Your task to perform on an android device: toggle data saver in the chrome app Image 0: 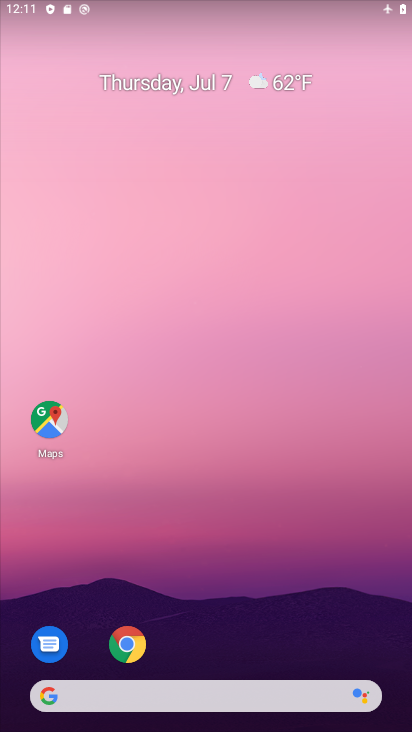
Step 0: click (126, 663)
Your task to perform on an android device: toggle data saver in the chrome app Image 1: 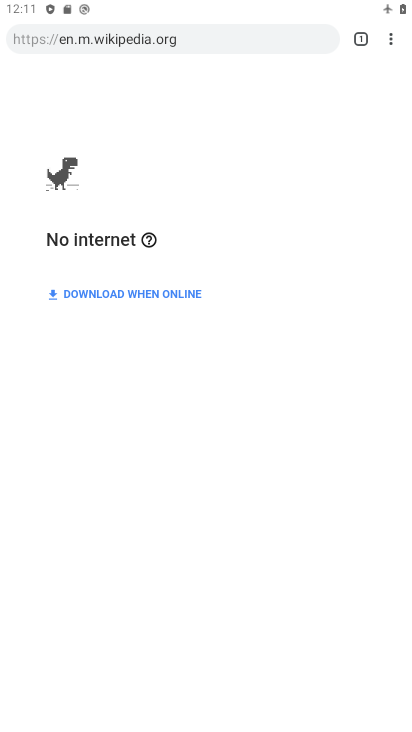
Step 1: click (398, 41)
Your task to perform on an android device: toggle data saver in the chrome app Image 2: 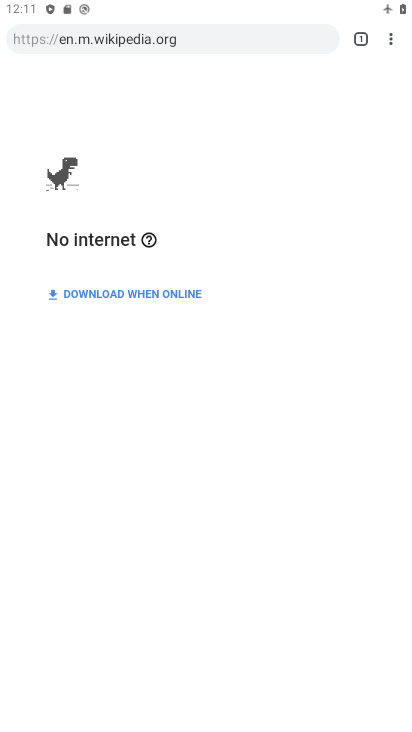
Step 2: click (390, 40)
Your task to perform on an android device: toggle data saver in the chrome app Image 3: 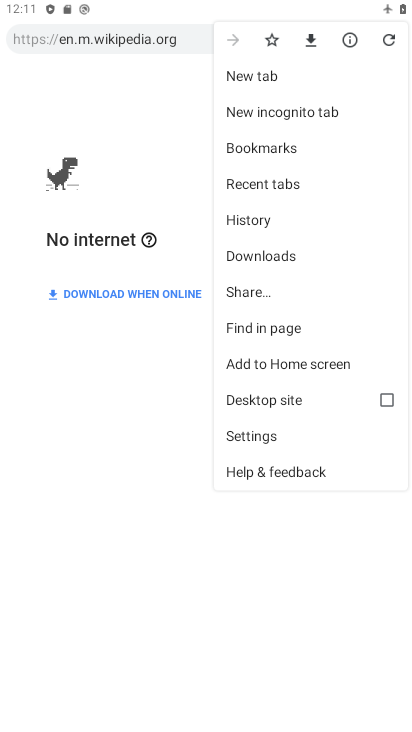
Step 3: click (285, 441)
Your task to perform on an android device: toggle data saver in the chrome app Image 4: 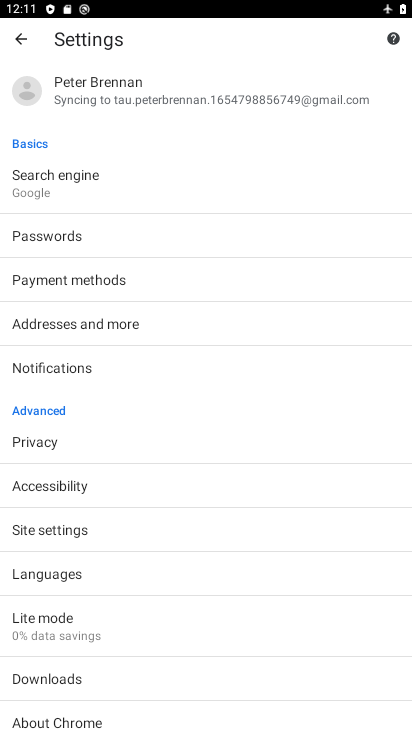
Step 4: click (119, 619)
Your task to perform on an android device: toggle data saver in the chrome app Image 5: 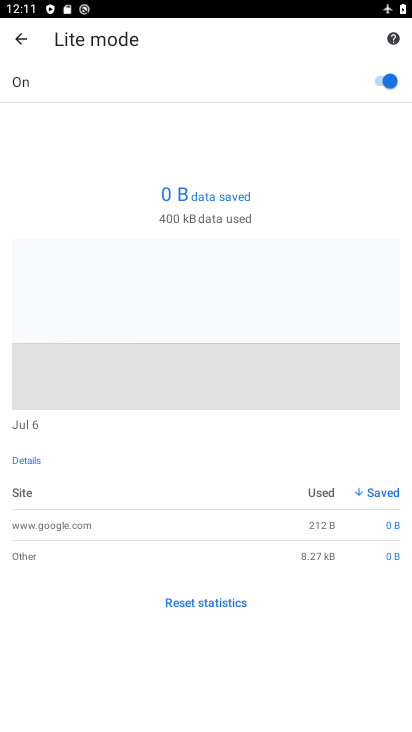
Step 5: click (382, 82)
Your task to perform on an android device: toggle data saver in the chrome app Image 6: 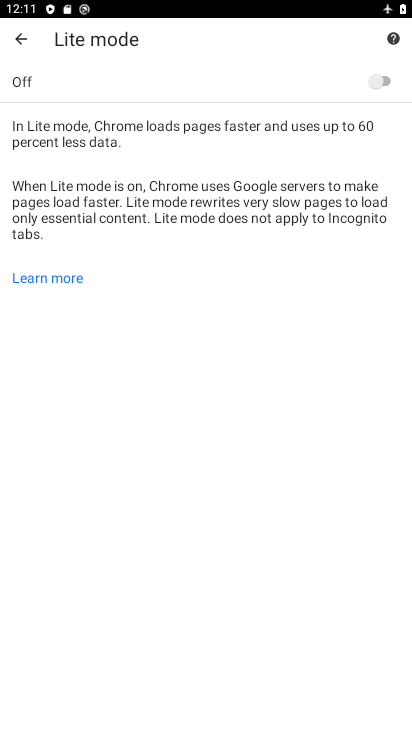
Step 6: task complete